Your task to perform on an android device: open app "Google Keep" (install if not already installed) Image 0: 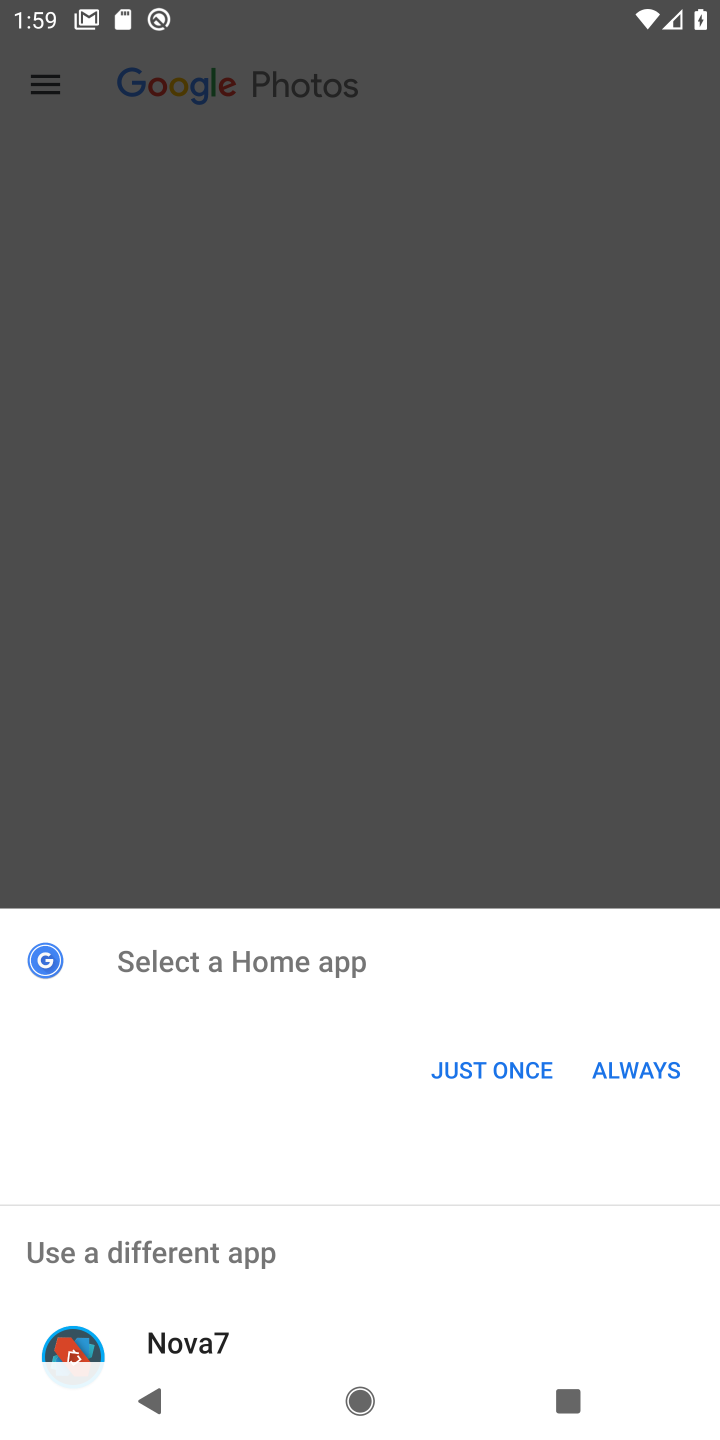
Step 0: click (652, 1050)
Your task to perform on an android device: open app "Google Keep" (install if not already installed) Image 1: 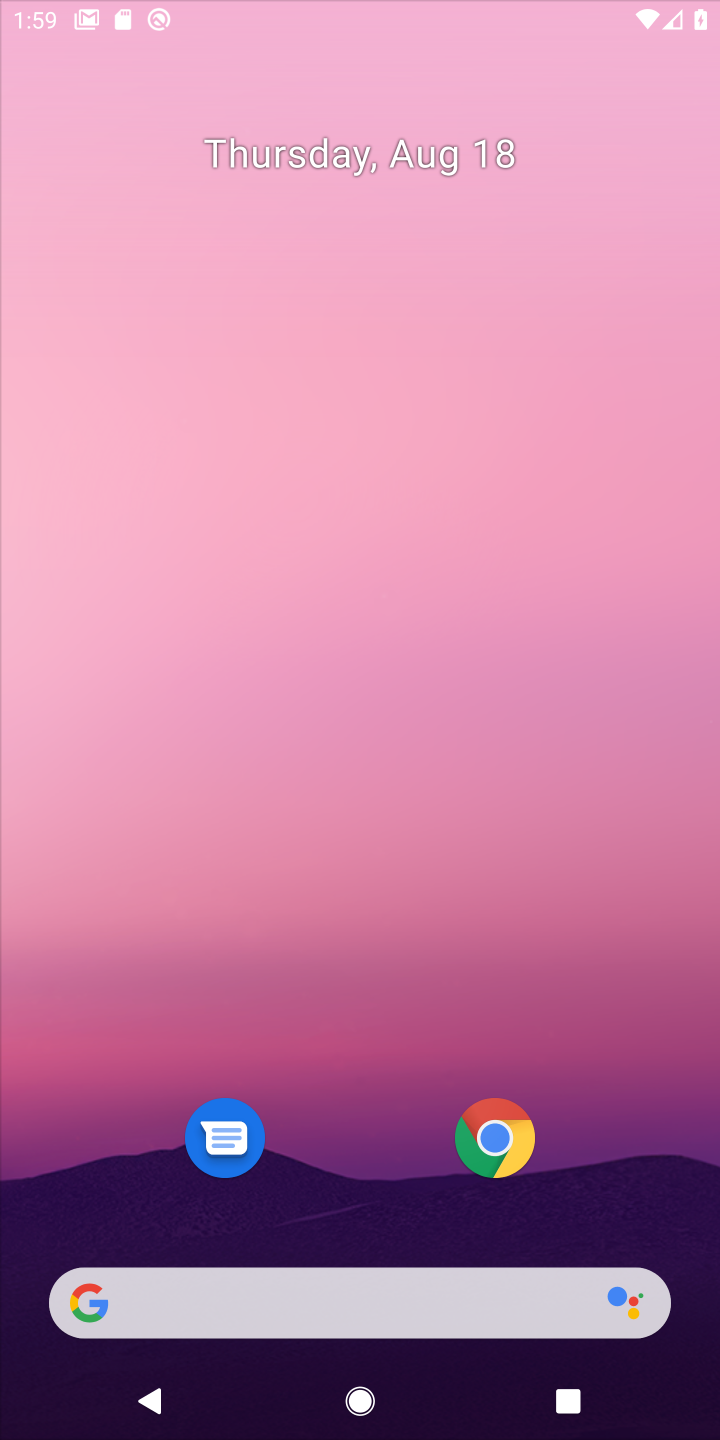
Step 1: press home button
Your task to perform on an android device: open app "Google Keep" (install if not already installed) Image 2: 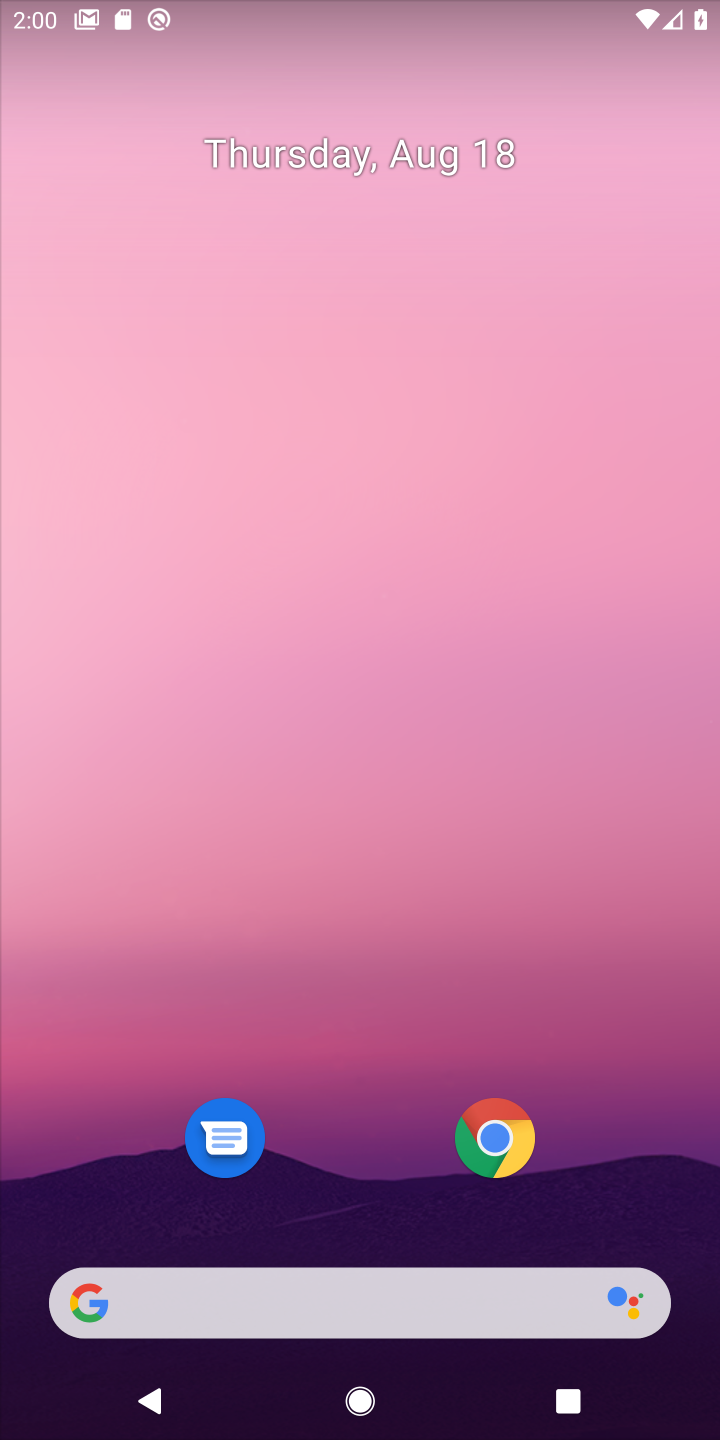
Step 2: drag from (520, 886) to (442, 1021)
Your task to perform on an android device: open app "Google Keep" (install if not already installed) Image 3: 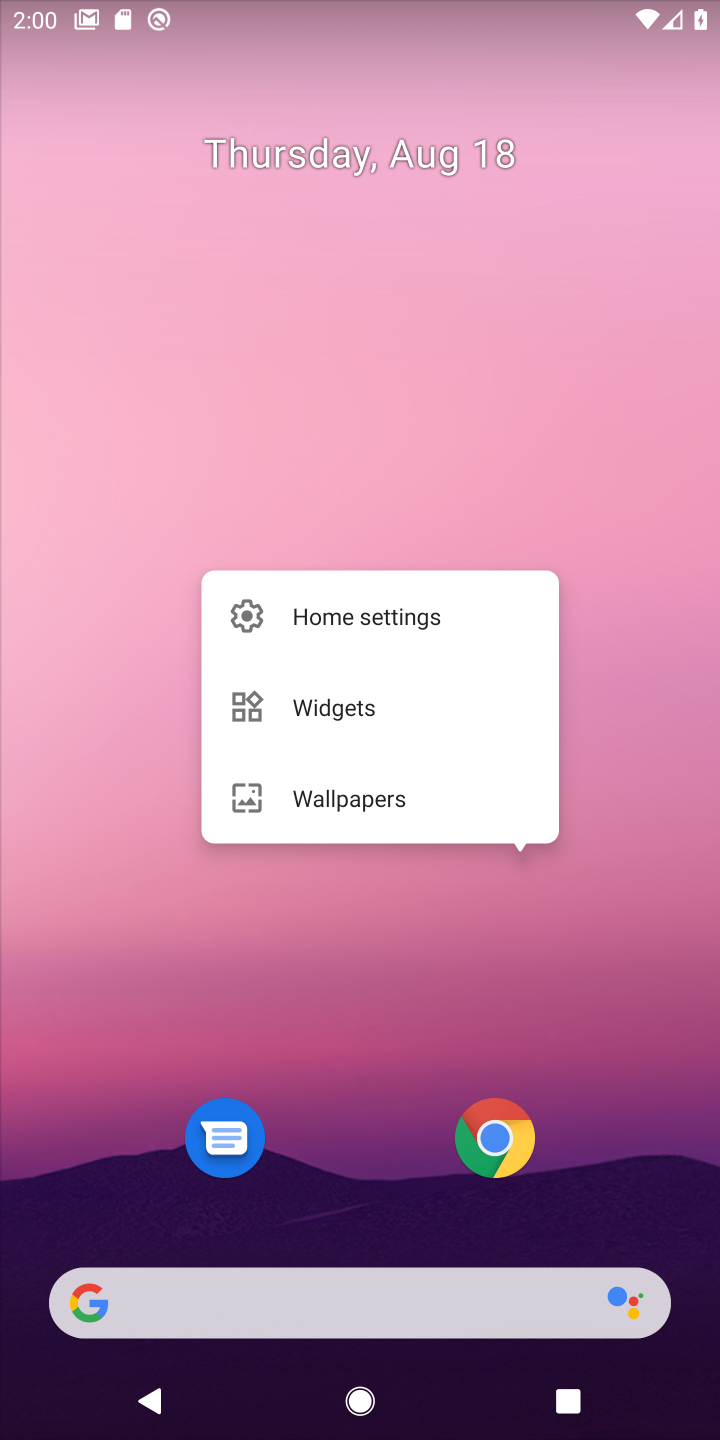
Step 3: drag from (404, 1186) to (661, 363)
Your task to perform on an android device: open app "Google Keep" (install if not already installed) Image 4: 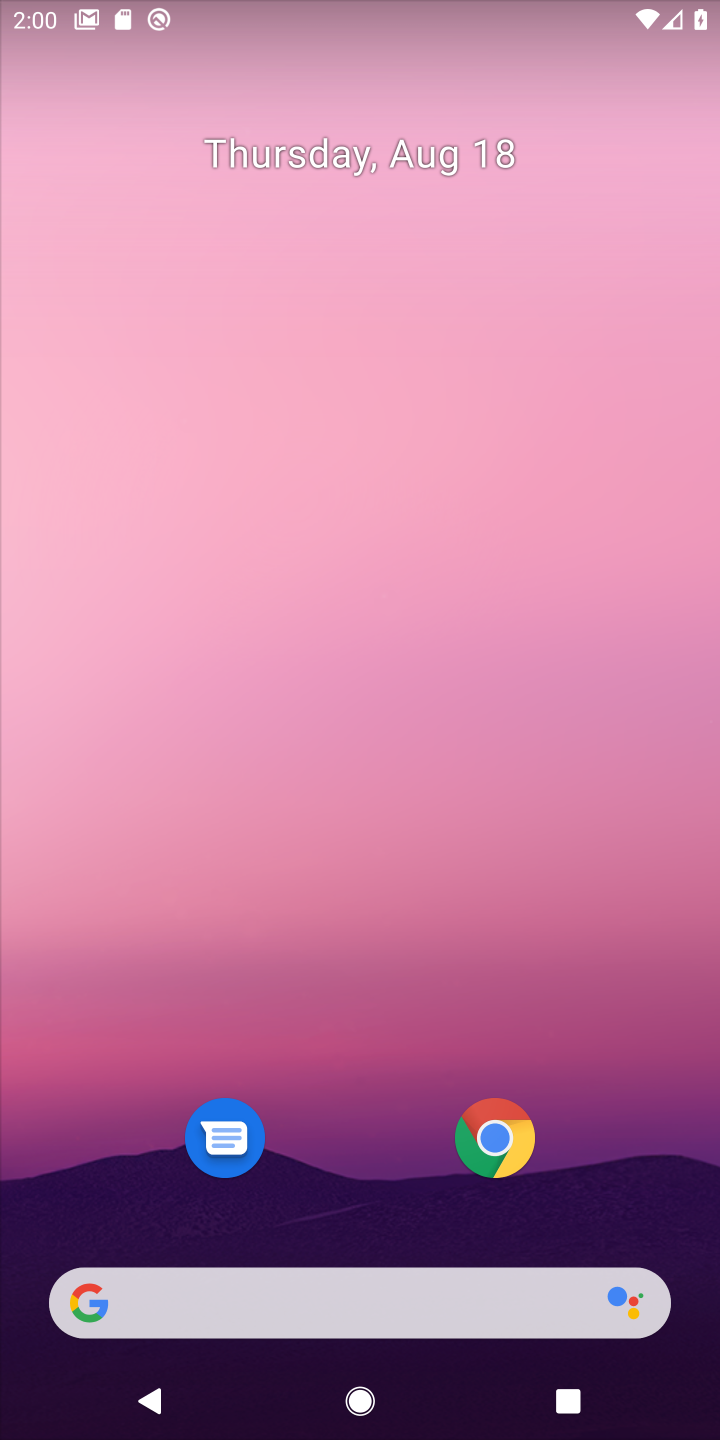
Step 4: drag from (402, 994) to (513, 316)
Your task to perform on an android device: open app "Google Keep" (install if not already installed) Image 5: 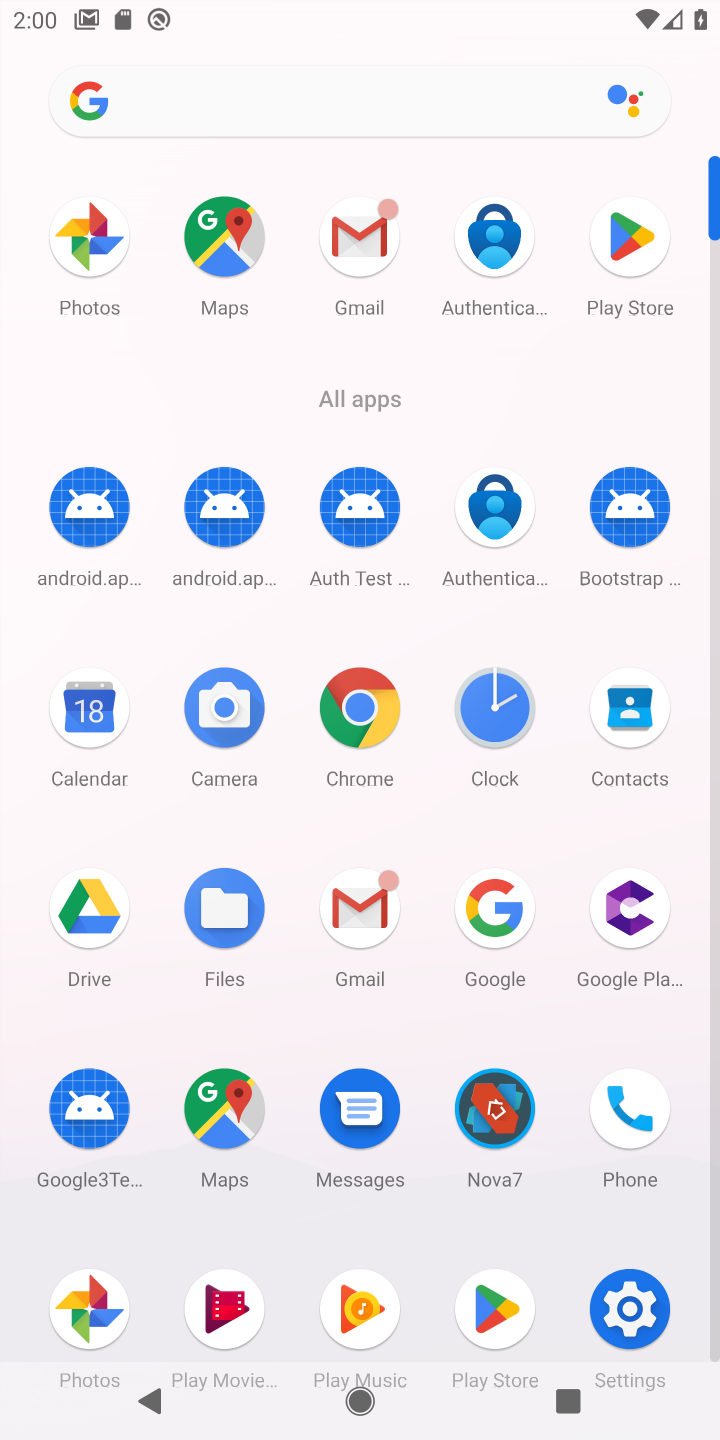
Step 5: click (636, 267)
Your task to perform on an android device: open app "Google Keep" (install if not already installed) Image 6: 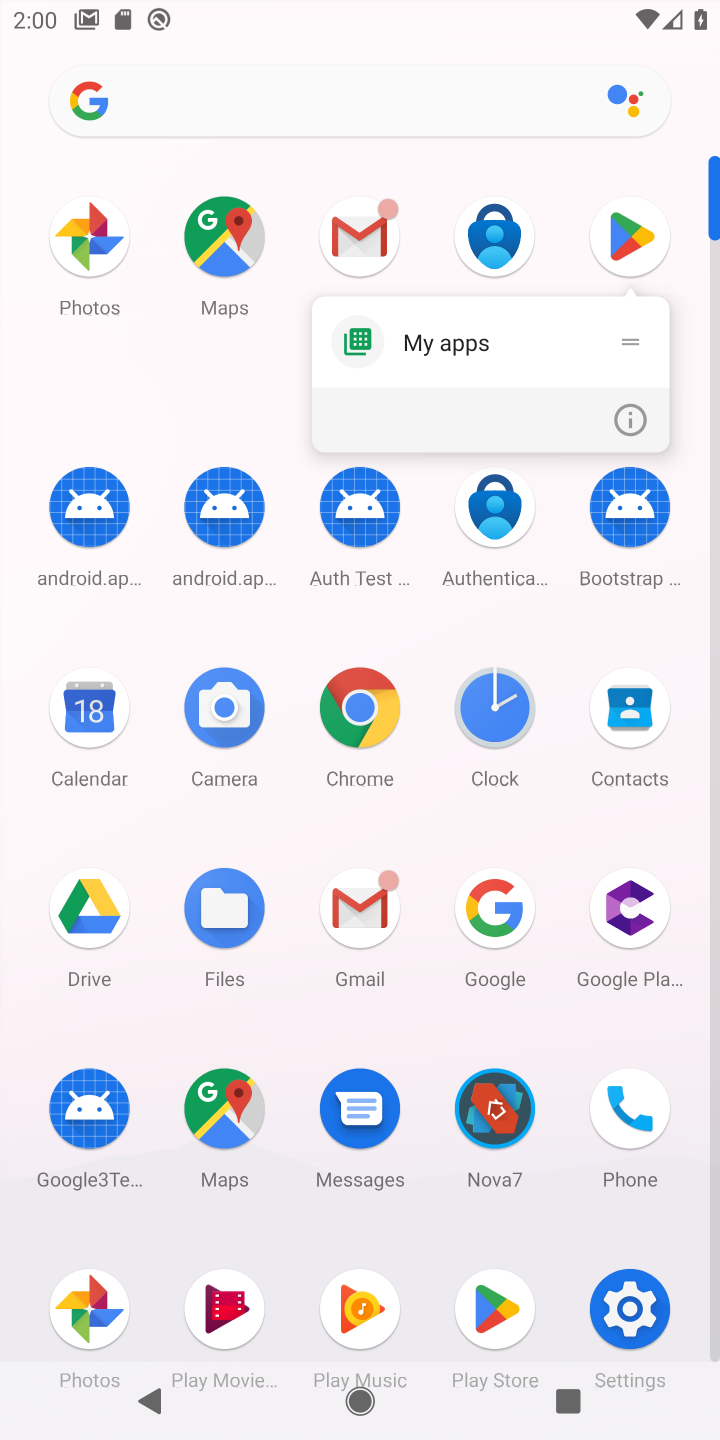
Step 6: click (648, 223)
Your task to perform on an android device: open app "Google Keep" (install if not already installed) Image 7: 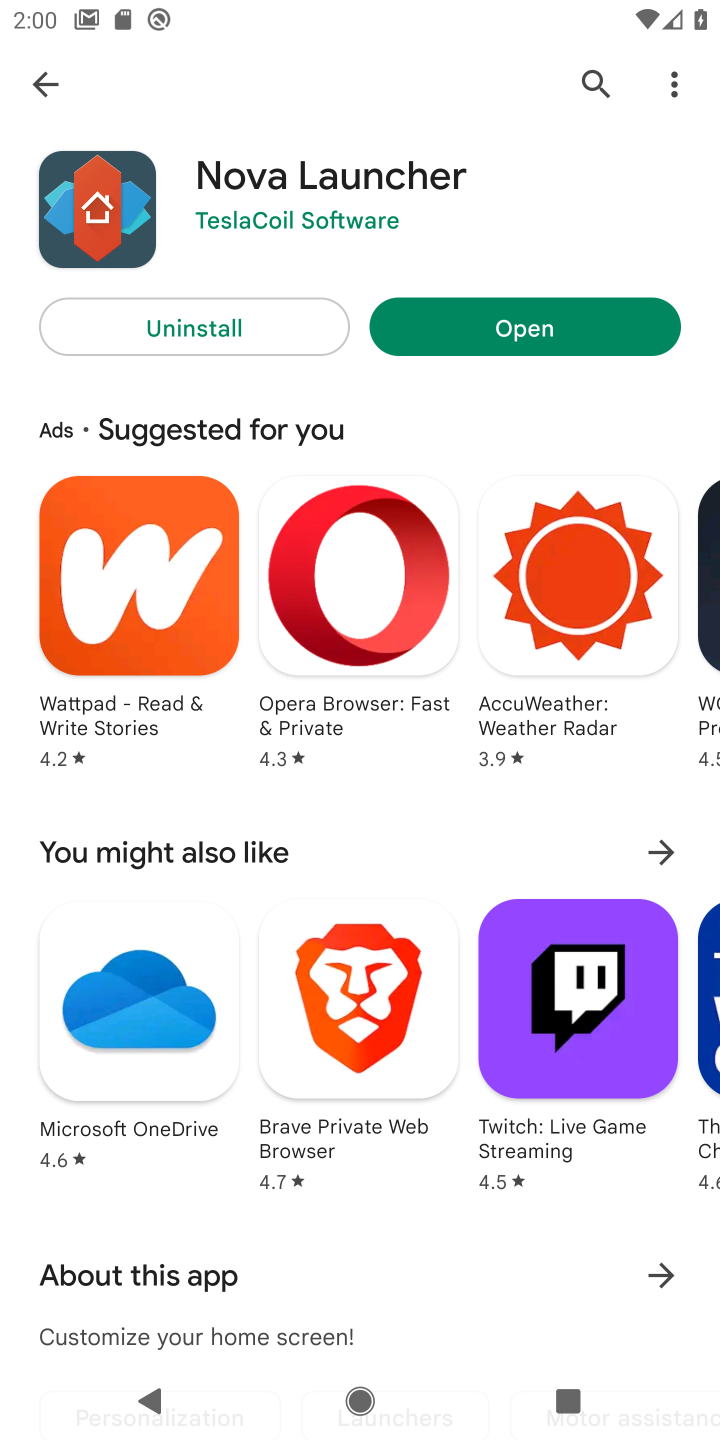
Step 7: click (55, 88)
Your task to perform on an android device: open app "Google Keep" (install if not already installed) Image 8: 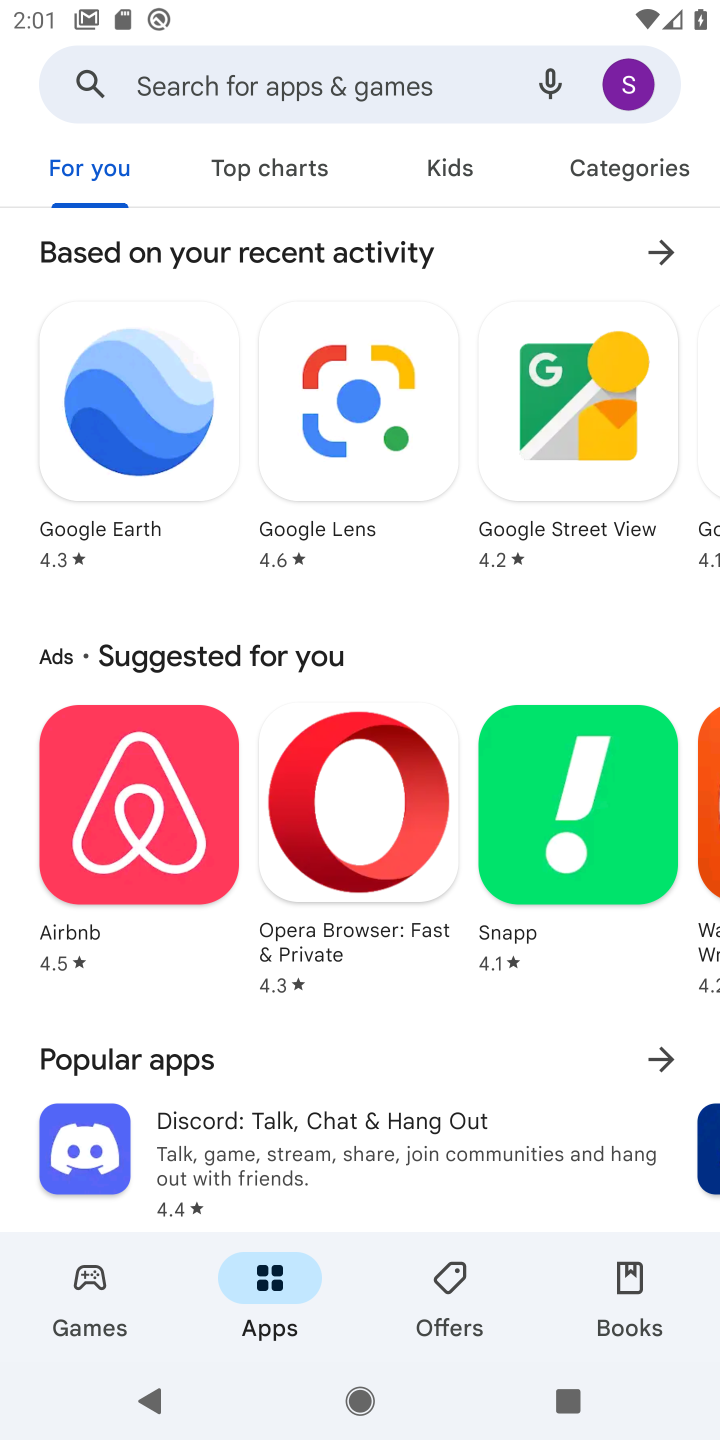
Step 8: click (234, 82)
Your task to perform on an android device: open app "Google Keep" (install if not already installed) Image 9: 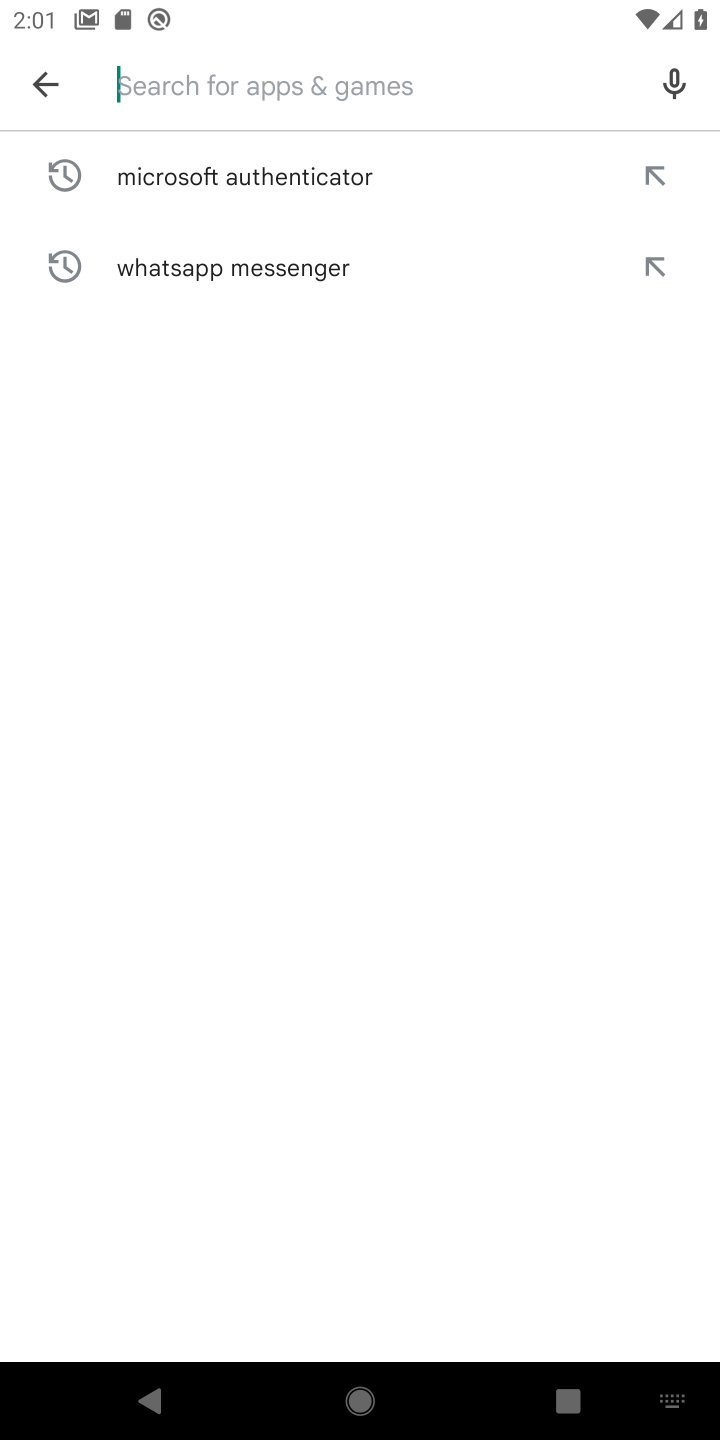
Step 9: type "Google Keep"
Your task to perform on an android device: open app "Google Keep" (install if not already installed) Image 10: 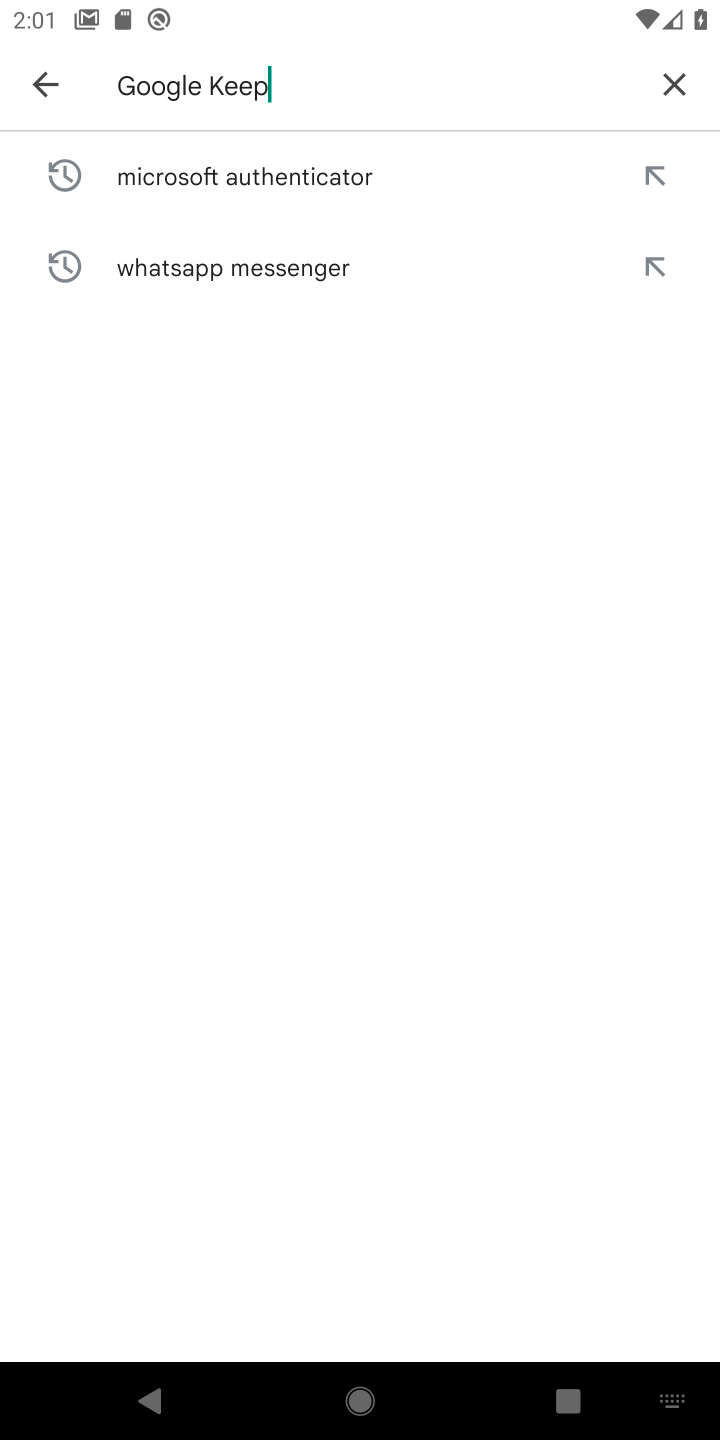
Step 10: type ""
Your task to perform on an android device: open app "Google Keep" (install if not already installed) Image 11: 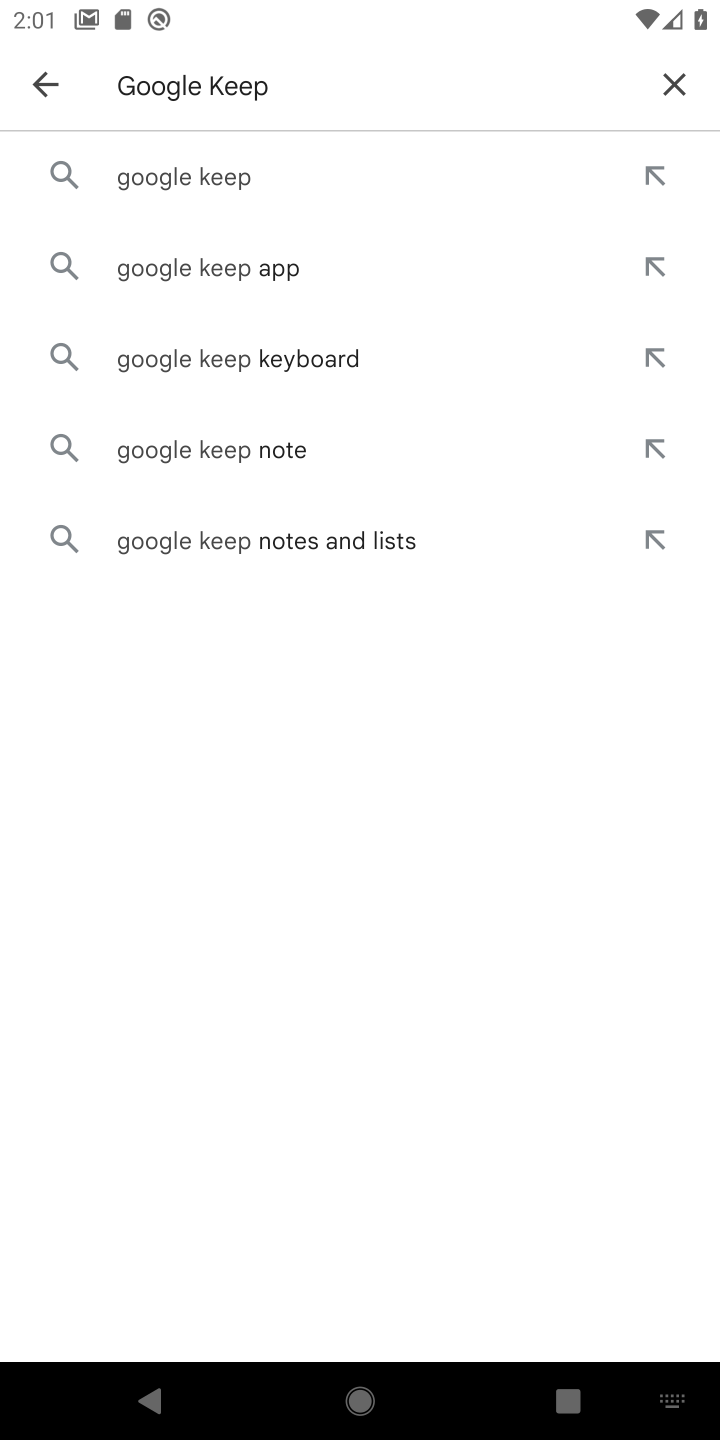
Step 11: click (352, 175)
Your task to perform on an android device: open app "Google Keep" (install if not already installed) Image 12: 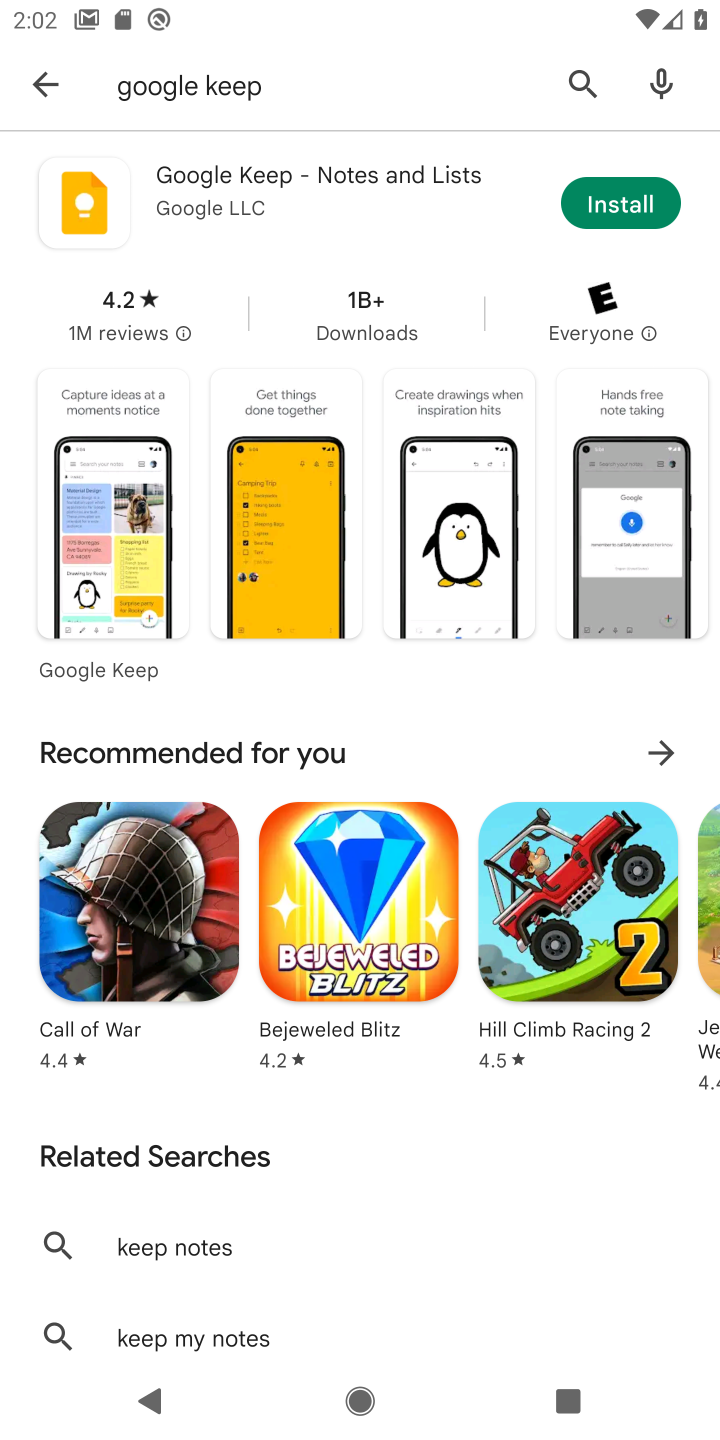
Step 12: click (643, 217)
Your task to perform on an android device: open app "Google Keep" (install if not already installed) Image 13: 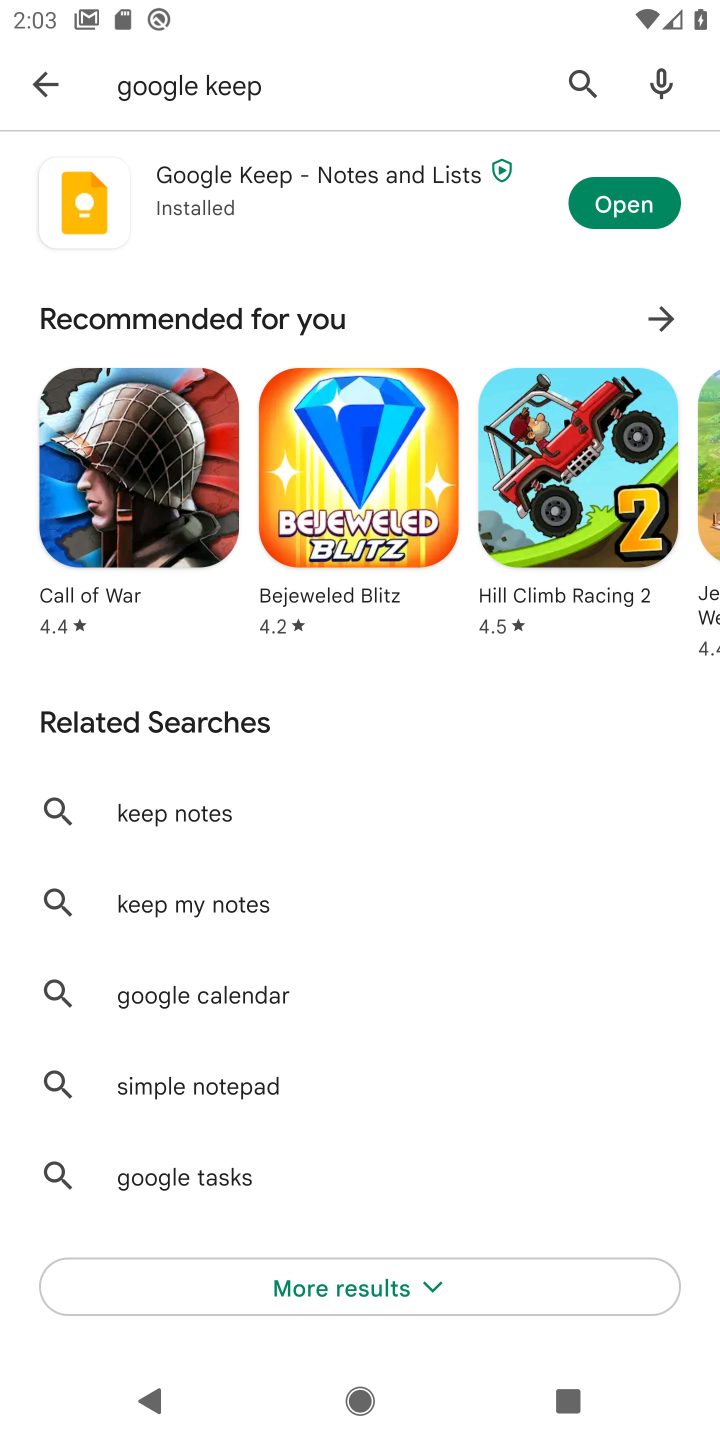
Step 13: click (633, 211)
Your task to perform on an android device: open app "Google Keep" (install if not already installed) Image 14: 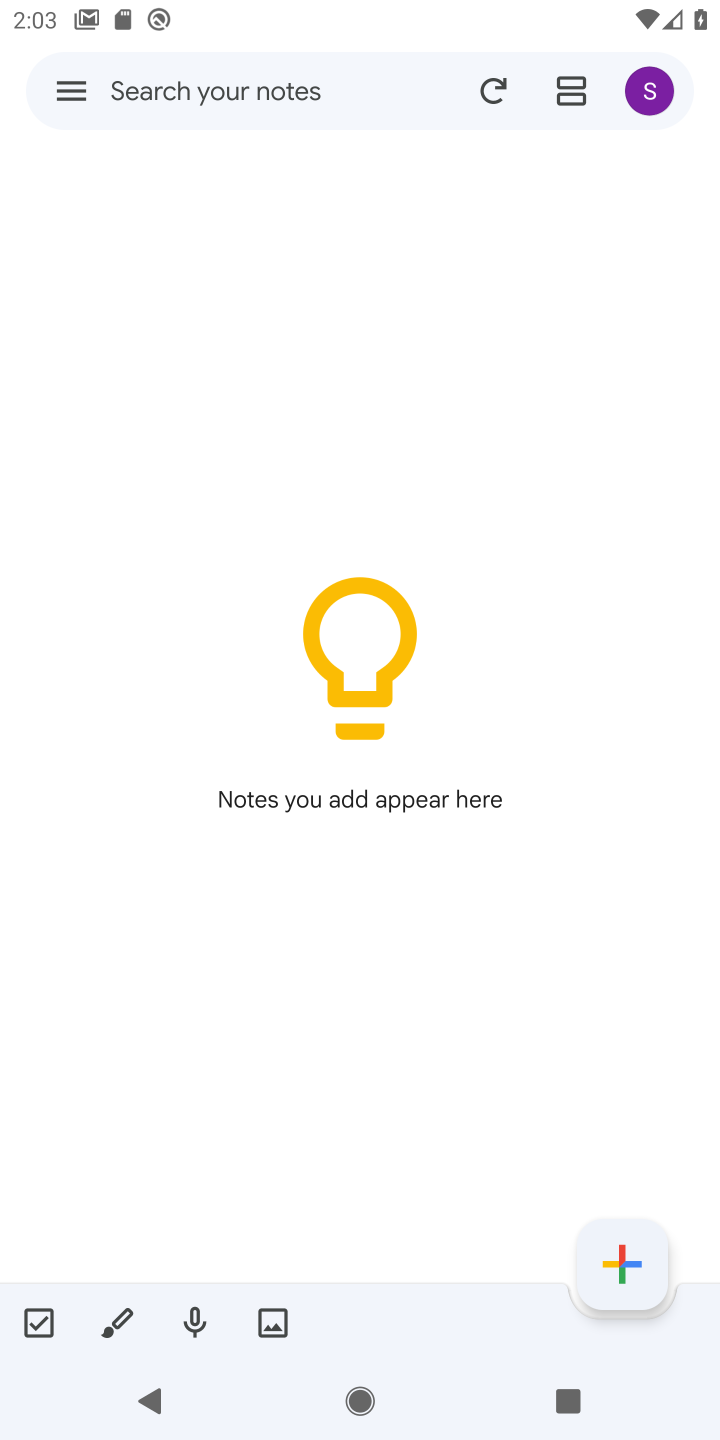
Step 14: task complete